Your task to perform on an android device: Open Reddit.com Image 0: 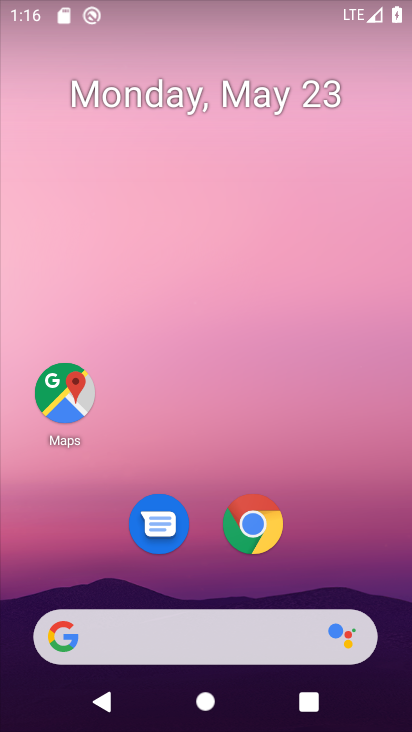
Step 0: click (293, 643)
Your task to perform on an android device: Open Reddit.com Image 1: 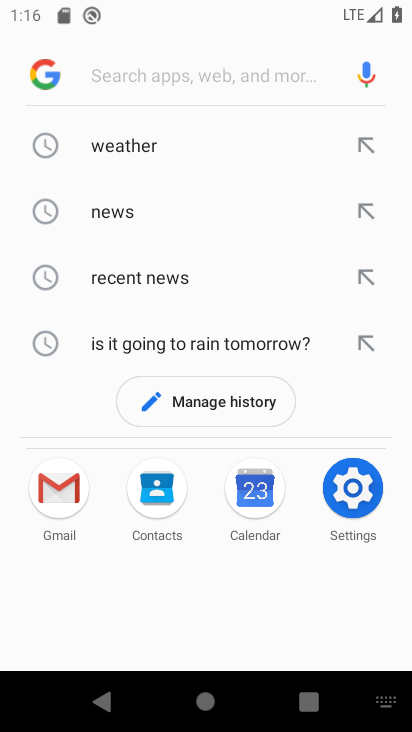
Step 1: type "Reddit.com"
Your task to perform on an android device: Open Reddit.com Image 2: 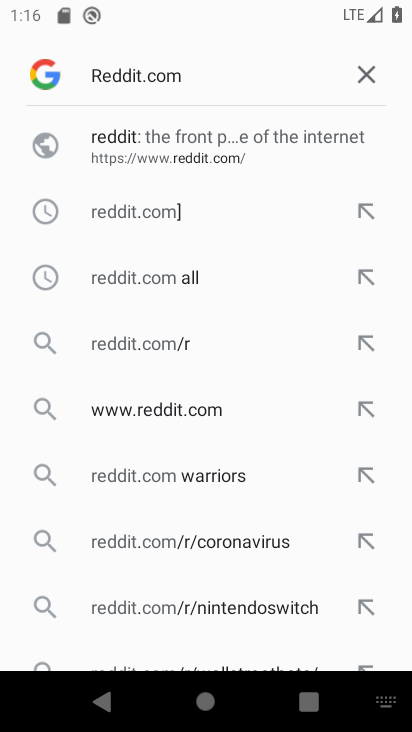
Step 2: click (153, 145)
Your task to perform on an android device: Open Reddit.com Image 3: 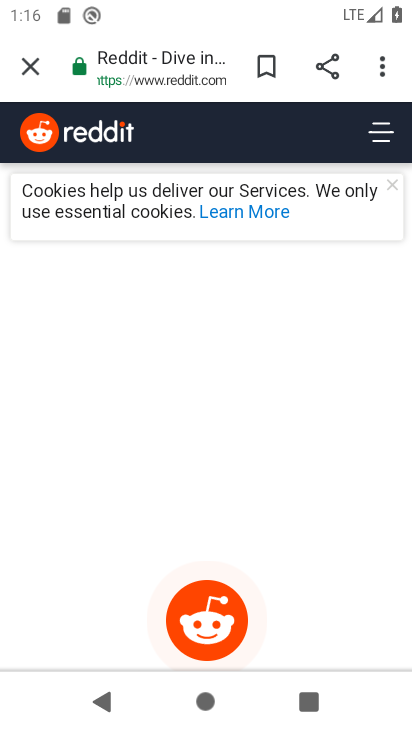
Step 3: task complete